Your task to perform on an android device: Find coffee shops on Maps Image 0: 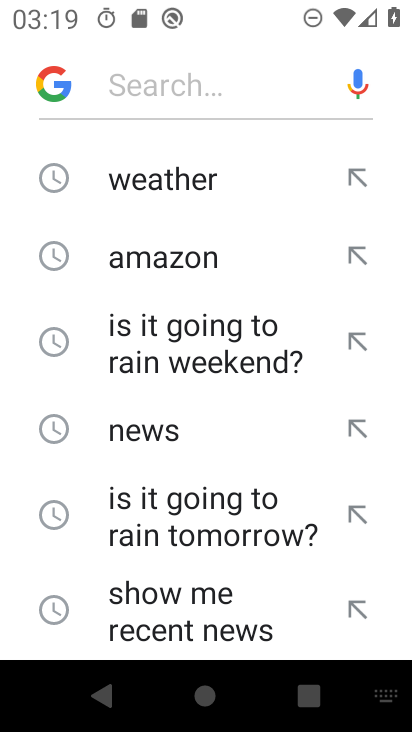
Step 0: press home button
Your task to perform on an android device: Find coffee shops on Maps Image 1: 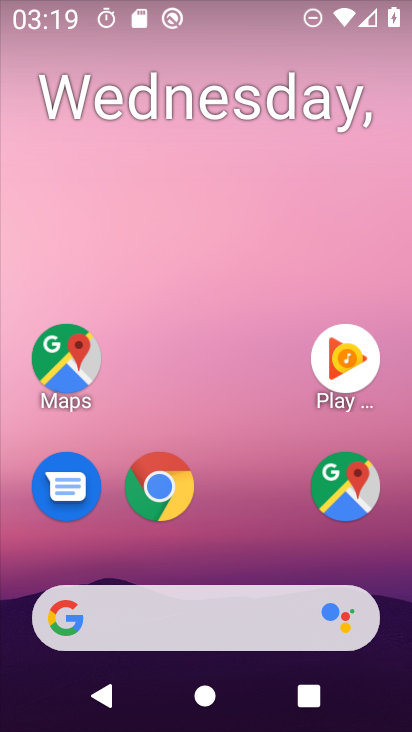
Step 1: drag from (255, 558) to (285, 158)
Your task to perform on an android device: Find coffee shops on Maps Image 2: 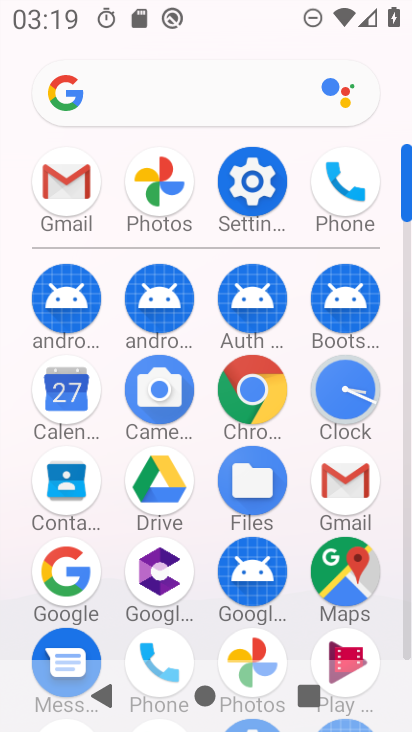
Step 2: click (354, 594)
Your task to perform on an android device: Find coffee shops on Maps Image 3: 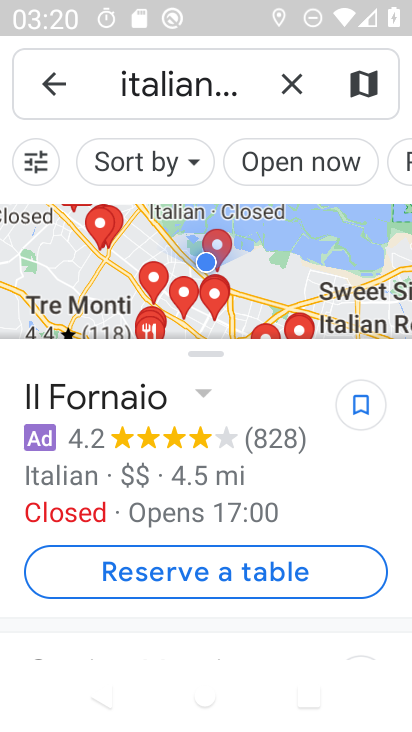
Step 3: press back button
Your task to perform on an android device: Find coffee shops on Maps Image 4: 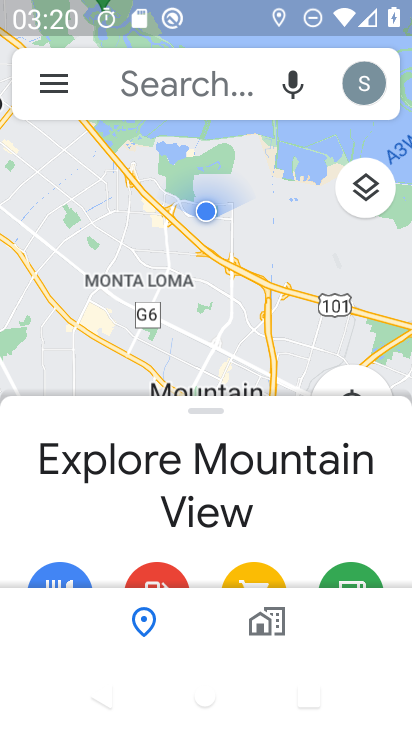
Step 4: click (230, 82)
Your task to perform on an android device: Find coffee shops on Maps Image 5: 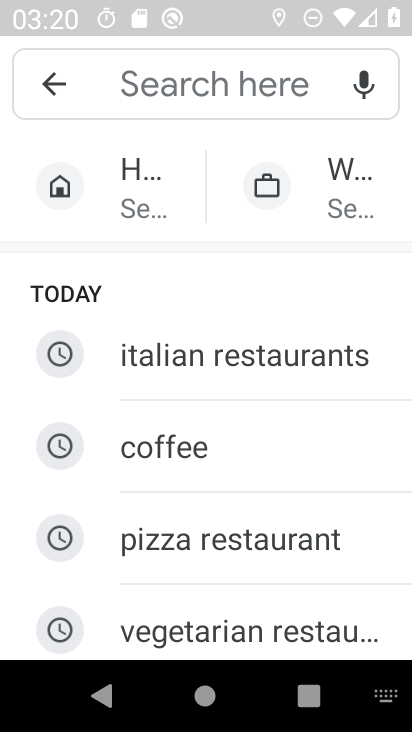
Step 5: type "coffee shops"
Your task to perform on an android device: Find coffee shops on Maps Image 6: 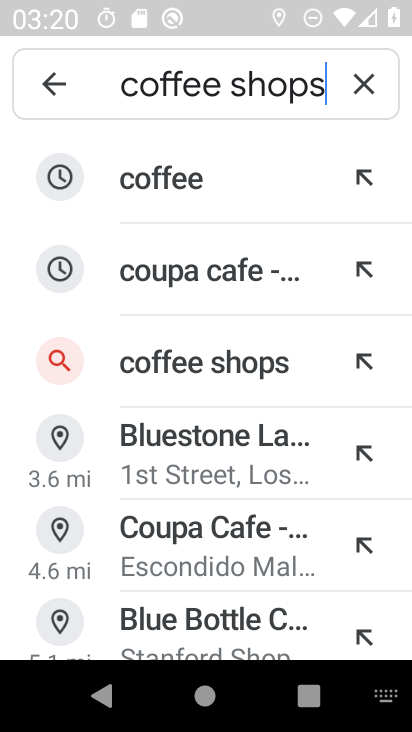
Step 6: click (308, 357)
Your task to perform on an android device: Find coffee shops on Maps Image 7: 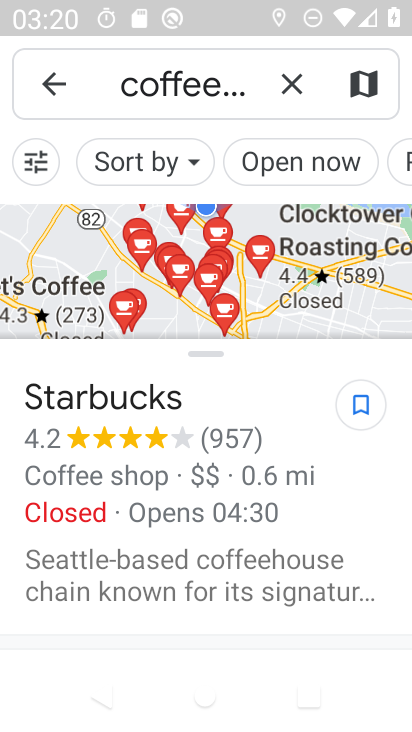
Step 7: task complete